Your task to perform on an android device: turn on sleep mode Image 0: 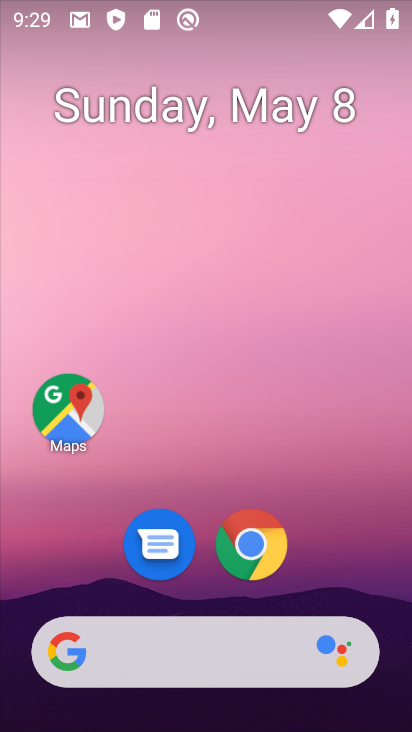
Step 0: drag from (353, 580) to (330, 108)
Your task to perform on an android device: turn on sleep mode Image 1: 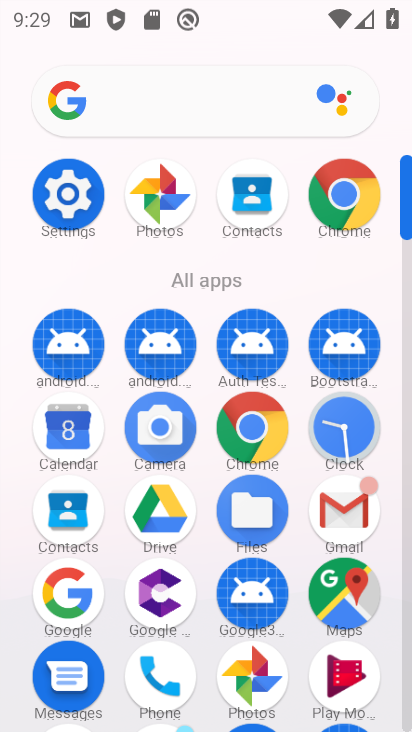
Step 1: click (89, 223)
Your task to perform on an android device: turn on sleep mode Image 2: 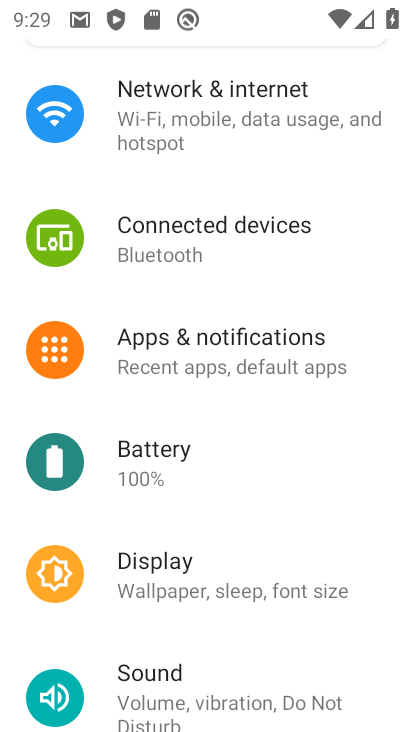
Step 2: drag from (190, 470) to (179, 289)
Your task to perform on an android device: turn on sleep mode Image 3: 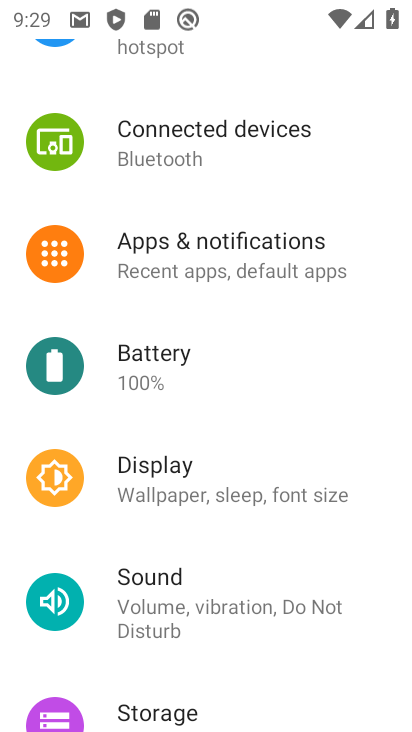
Step 3: click (163, 601)
Your task to perform on an android device: turn on sleep mode Image 4: 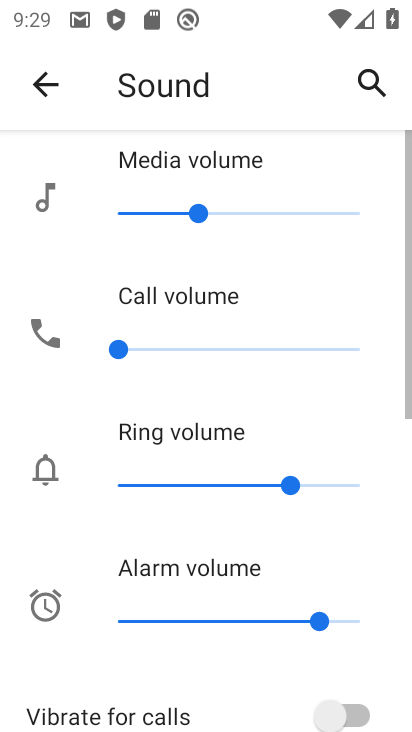
Step 4: click (65, 88)
Your task to perform on an android device: turn on sleep mode Image 5: 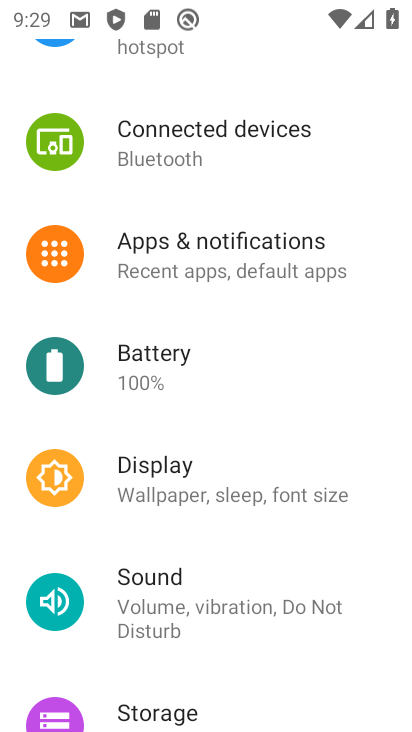
Step 5: click (231, 474)
Your task to perform on an android device: turn on sleep mode Image 6: 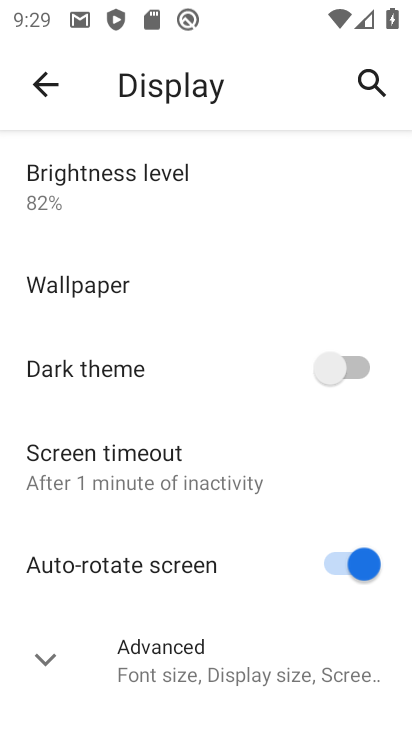
Step 6: click (284, 471)
Your task to perform on an android device: turn on sleep mode Image 7: 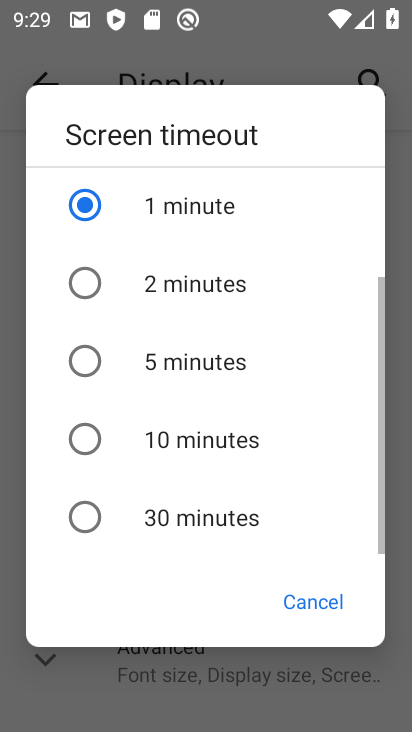
Step 7: click (257, 211)
Your task to perform on an android device: turn on sleep mode Image 8: 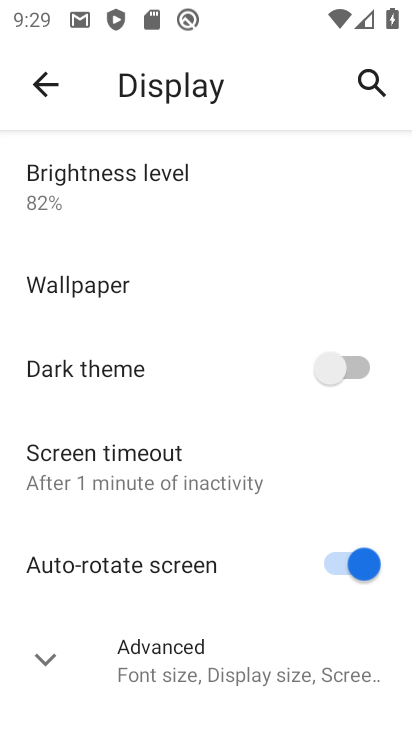
Step 8: task complete